Your task to perform on an android device: turn on notifications settings in the gmail app Image 0: 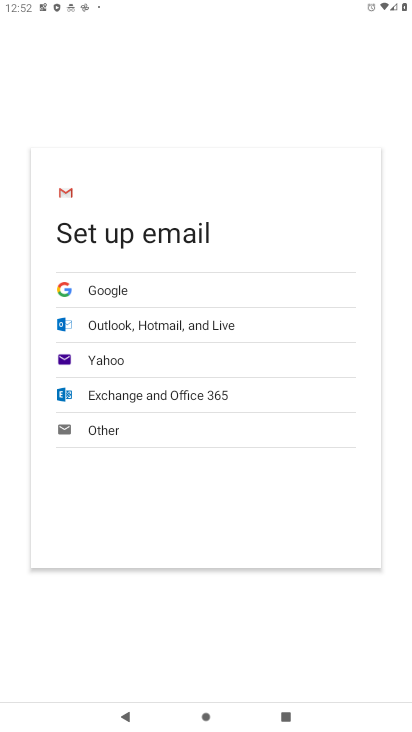
Step 0: press home button
Your task to perform on an android device: turn on notifications settings in the gmail app Image 1: 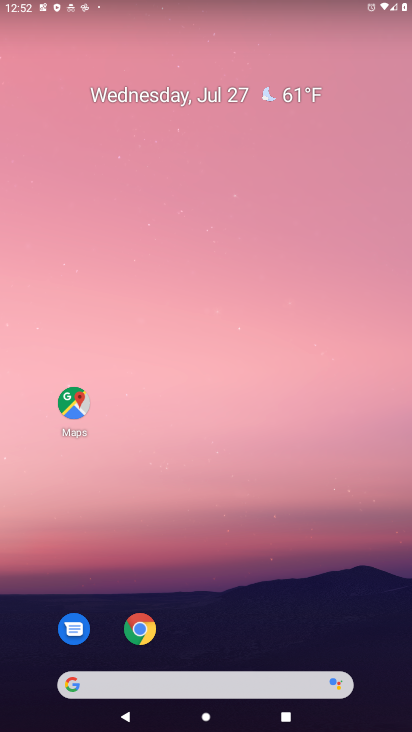
Step 1: drag from (239, 663) to (266, 233)
Your task to perform on an android device: turn on notifications settings in the gmail app Image 2: 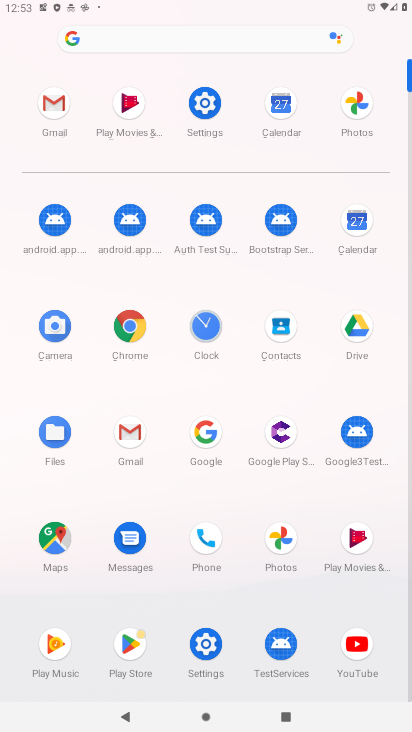
Step 2: click (62, 129)
Your task to perform on an android device: turn on notifications settings in the gmail app Image 3: 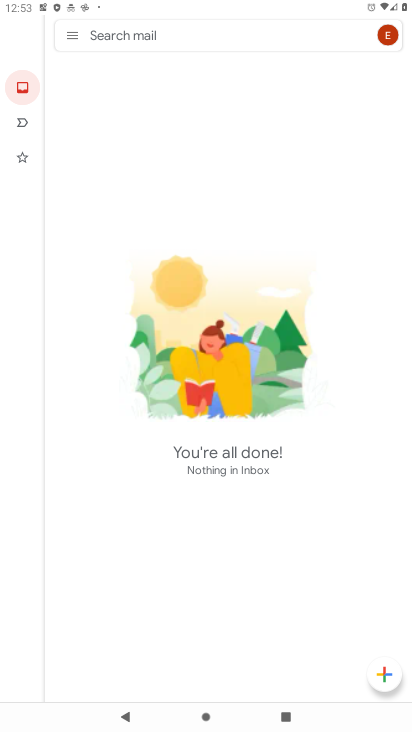
Step 3: task complete